Your task to perform on an android device: Open Google Maps and go to "Timeline" Image 0: 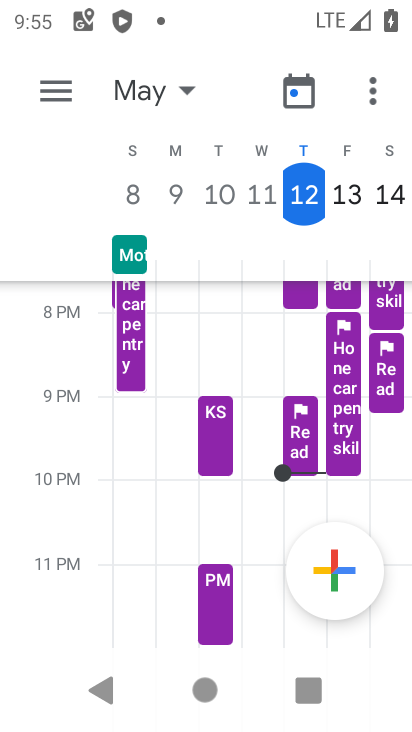
Step 0: press home button
Your task to perform on an android device: Open Google Maps and go to "Timeline" Image 1: 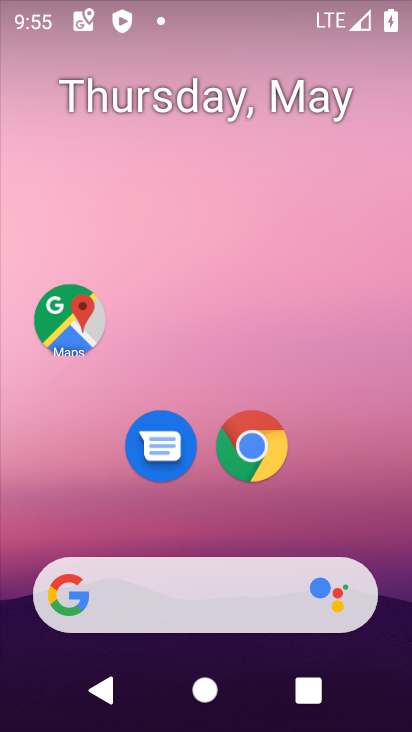
Step 1: click (72, 316)
Your task to perform on an android device: Open Google Maps and go to "Timeline" Image 2: 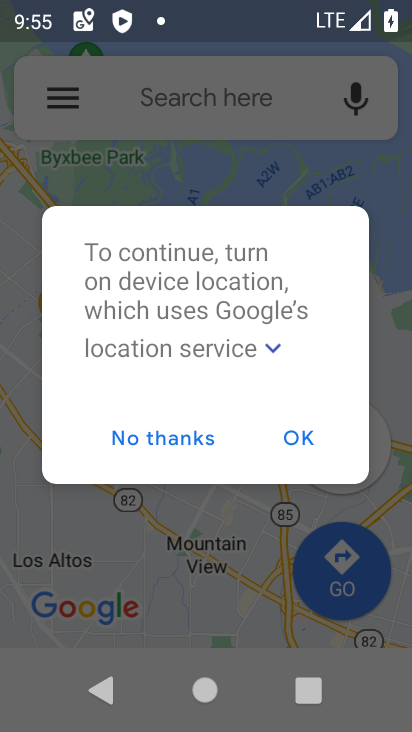
Step 2: click (299, 438)
Your task to perform on an android device: Open Google Maps and go to "Timeline" Image 3: 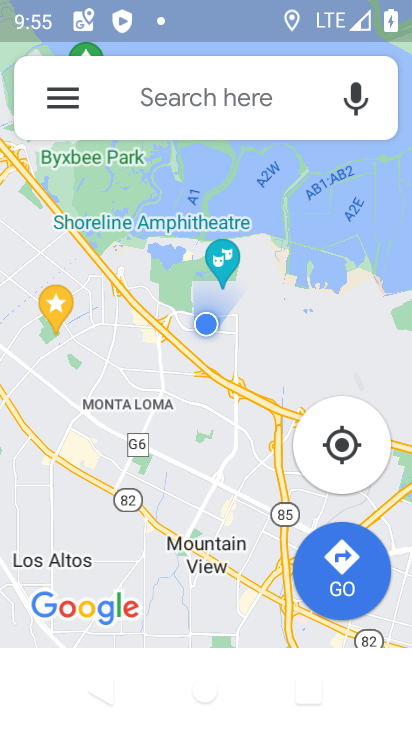
Step 3: click (63, 93)
Your task to perform on an android device: Open Google Maps and go to "Timeline" Image 4: 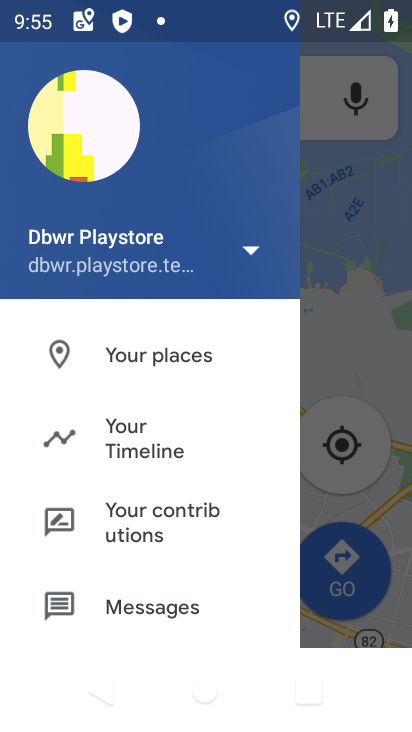
Step 4: click (136, 443)
Your task to perform on an android device: Open Google Maps and go to "Timeline" Image 5: 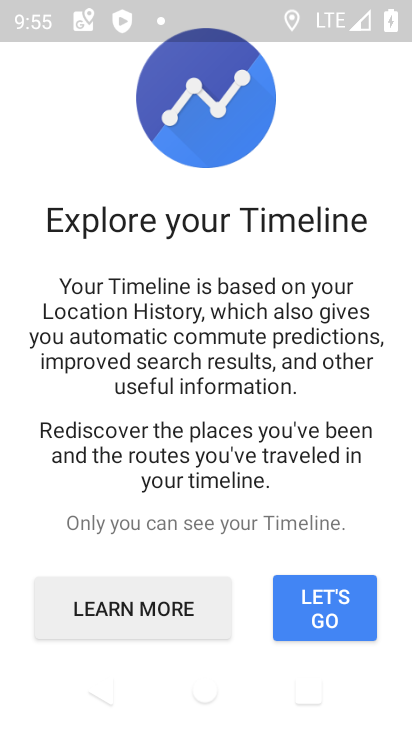
Step 5: task complete